Your task to perform on an android device: Go to notification settings Image 0: 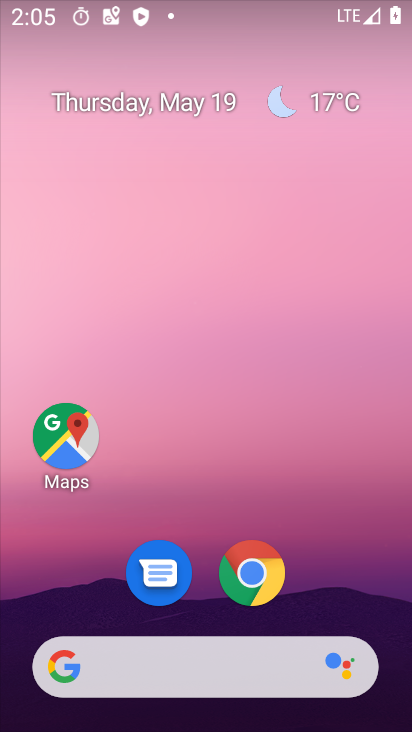
Step 0: drag from (197, 569) to (224, 169)
Your task to perform on an android device: Go to notification settings Image 1: 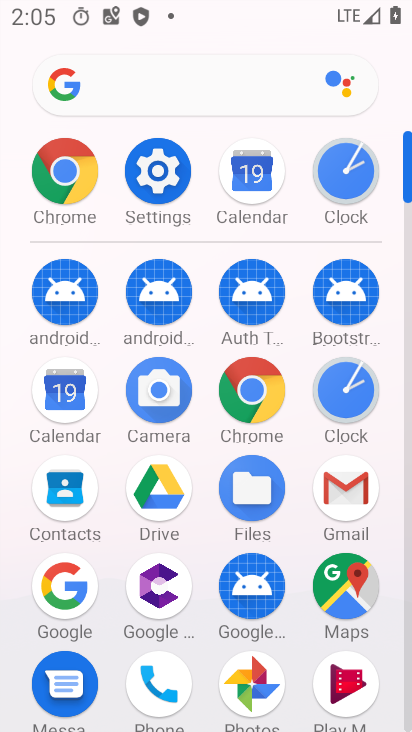
Step 1: click (159, 169)
Your task to perform on an android device: Go to notification settings Image 2: 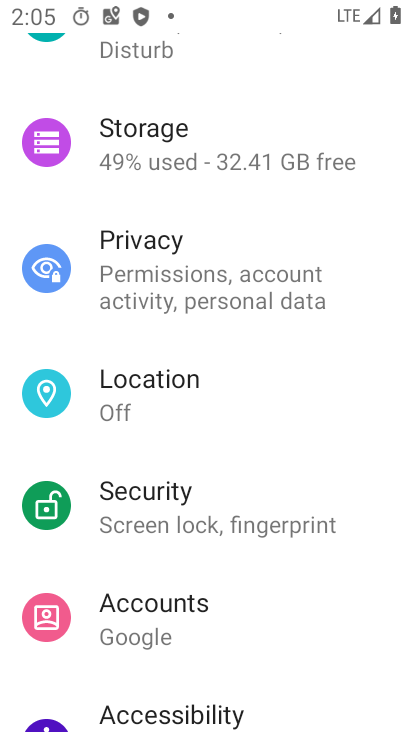
Step 2: drag from (153, 211) to (155, 712)
Your task to perform on an android device: Go to notification settings Image 3: 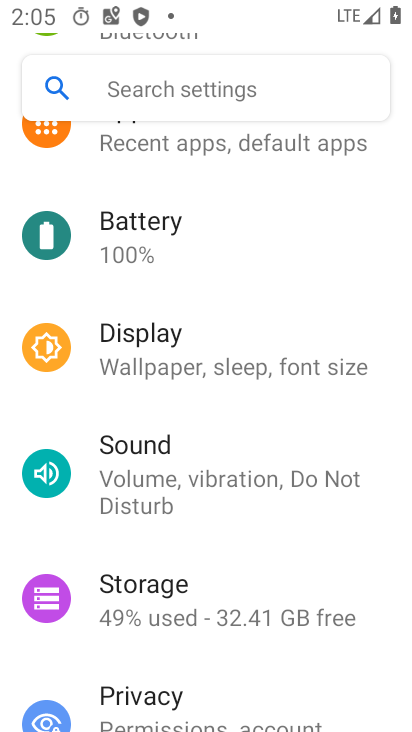
Step 3: drag from (214, 264) to (217, 650)
Your task to perform on an android device: Go to notification settings Image 4: 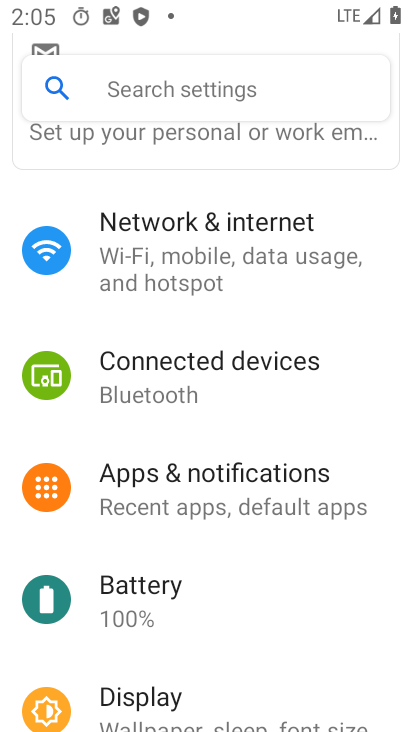
Step 4: click (226, 514)
Your task to perform on an android device: Go to notification settings Image 5: 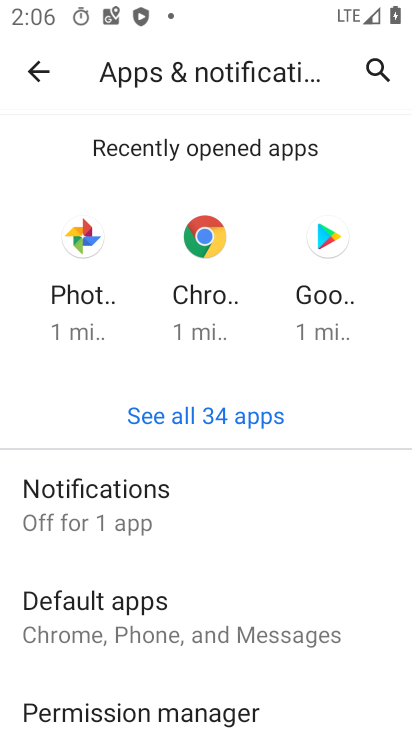
Step 5: task complete